Your task to perform on an android device: change the clock display to digital Image 0: 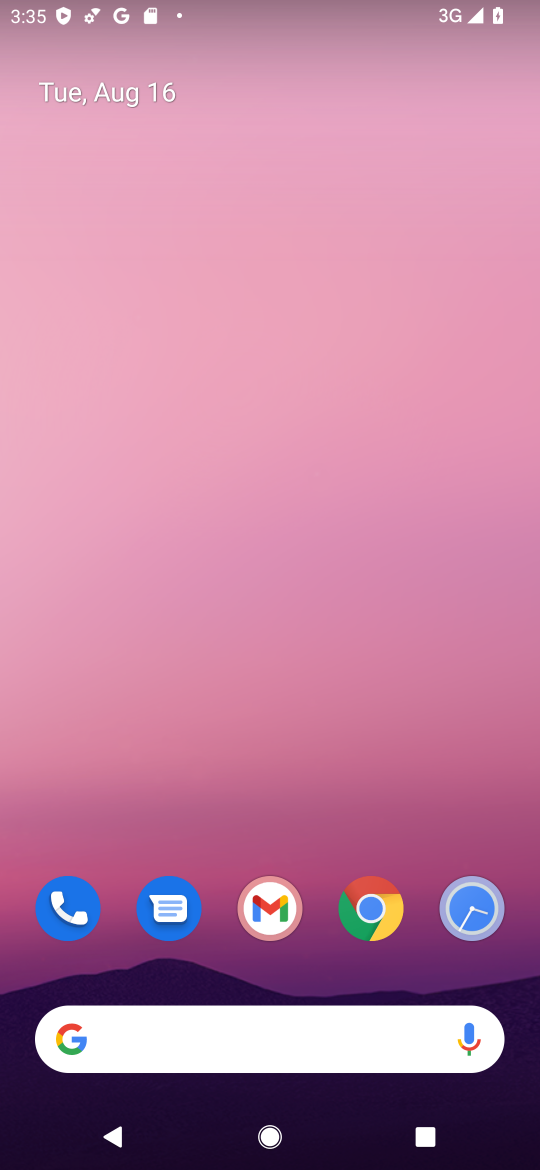
Step 0: drag from (260, 897) to (392, 137)
Your task to perform on an android device: change the clock display to digital Image 1: 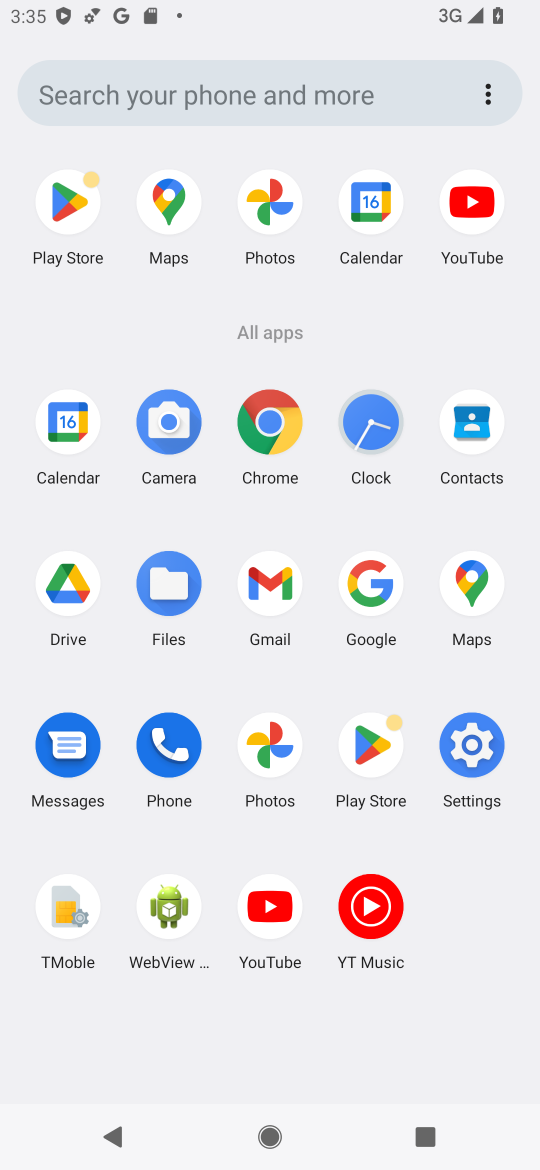
Step 1: click (365, 405)
Your task to perform on an android device: change the clock display to digital Image 2: 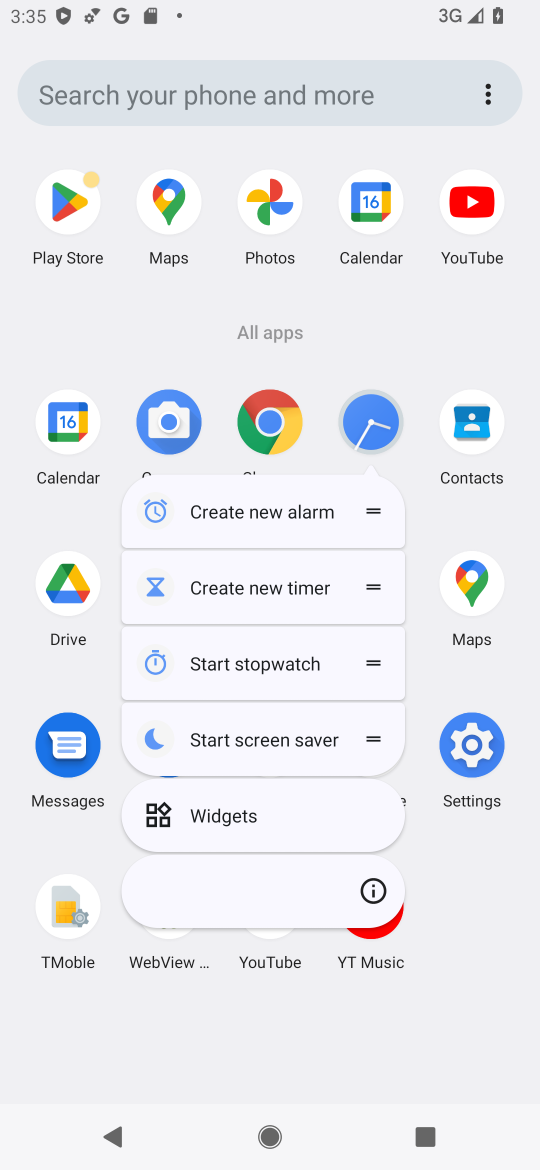
Step 2: click (376, 410)
Your task to perform on an android device: change the clock display to digital Image 3: 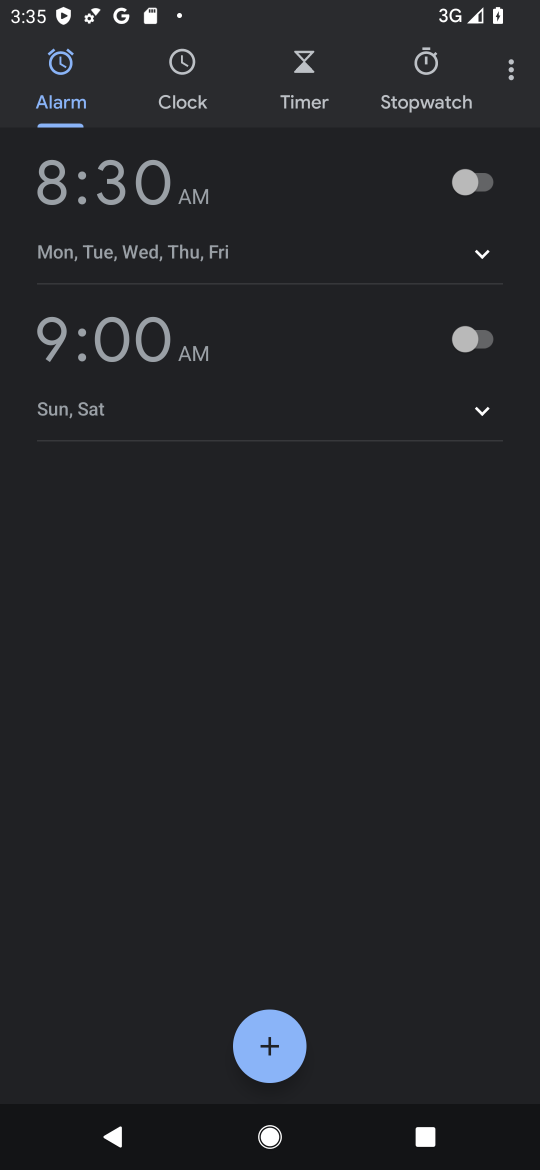
Step 3: drag from (505, 77) to (374, 620)
Your task to perform on an android device: change the clock display to digital Image 4: 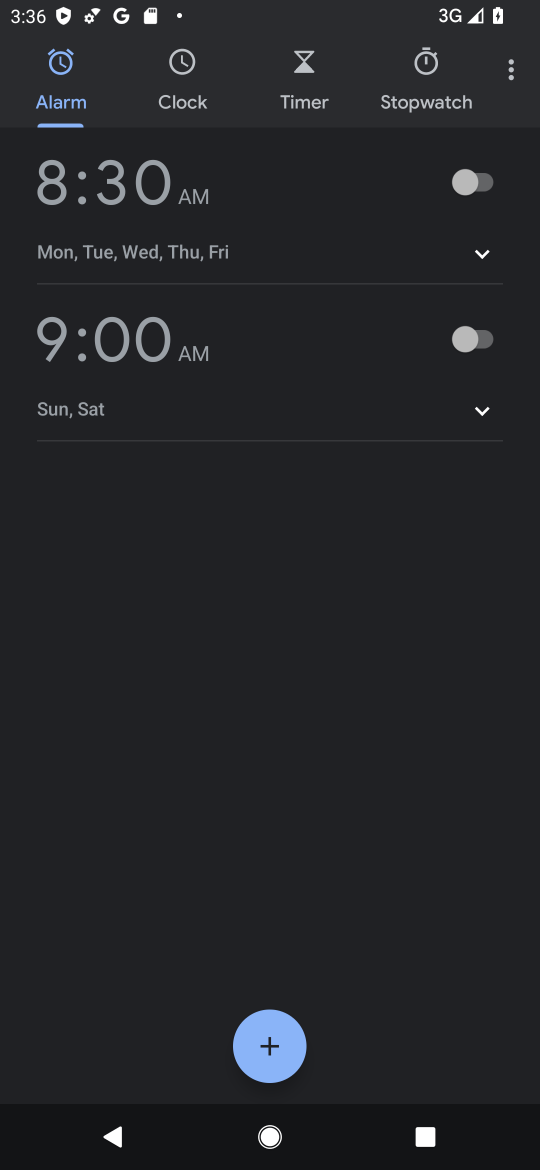
Step 4: click (507, 64)
Your task to perform on an android device: change the clock display to digital Image 5: 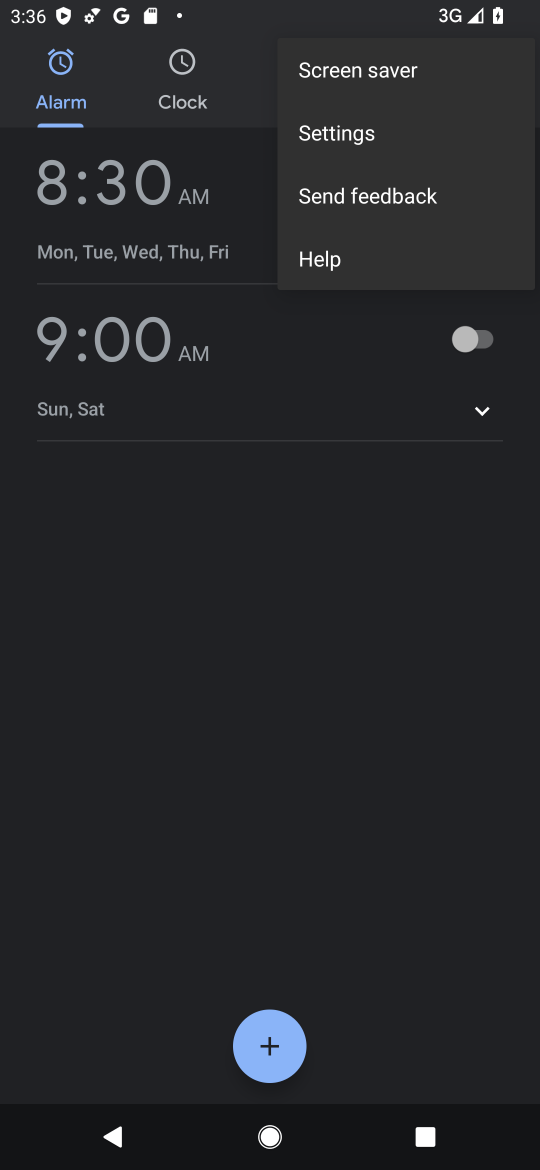
Step 5: click (373, 136)
Your task to perform on an android device: change the clock display to digital Image 6: 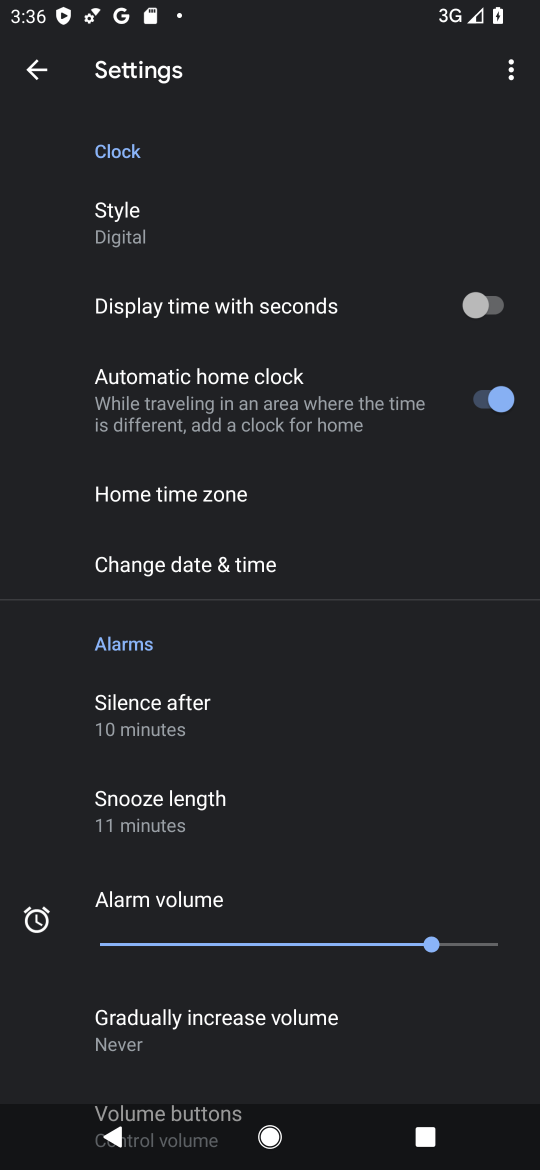
Step 6: task complete